Your task to perform on an android device: What's the weather? Image 0: 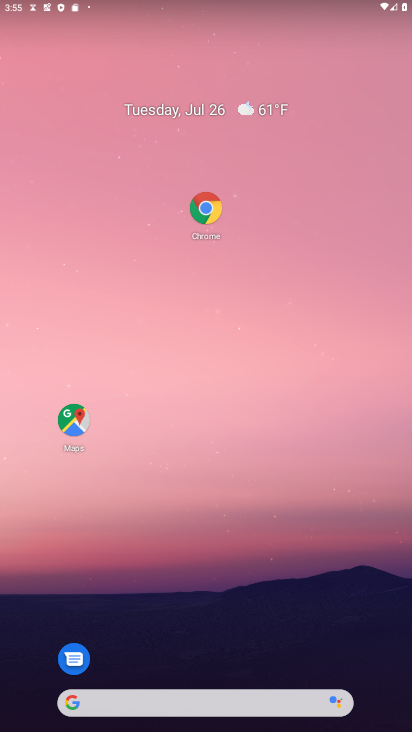
Step 0: click (157, 705)
Your task to perform on an android device: What's the weather? Image 1: 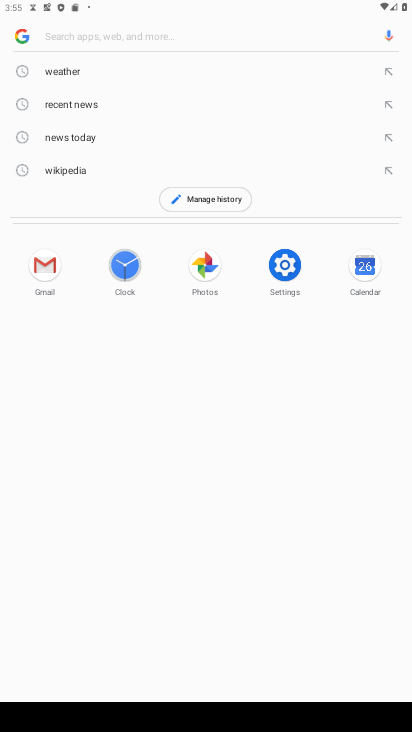
Step 1: click (64, 69)
Your task to perform on an android device: What's the weather? Image 2: 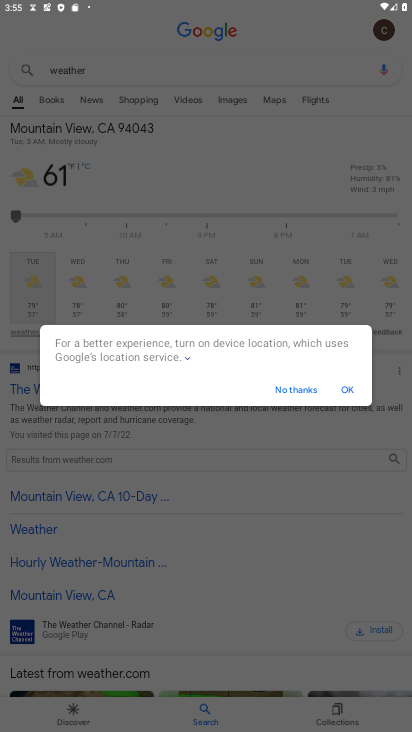
Step 2: task complete